Your task to perform on an android device: turn off notifications settings in the gmail app Image 0: 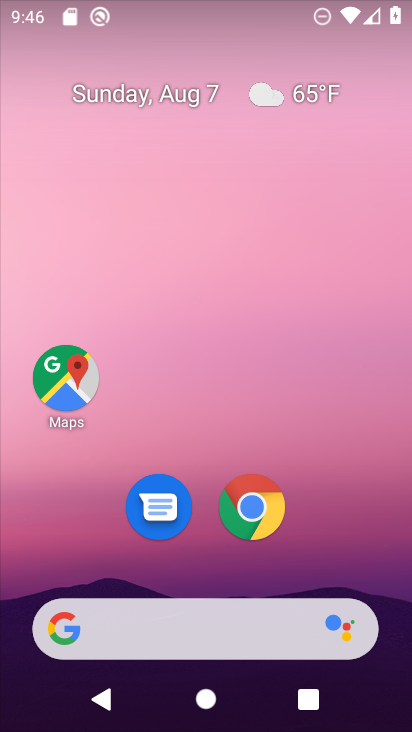
Step 0: click (368, 80)
Your task to perform on an android device: turn off notifications settings in the gmail app Image 1: 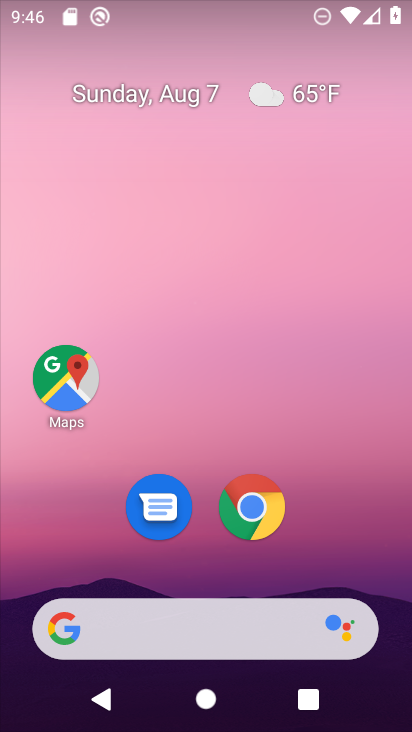
Step 1: drag from (371, 568) to (333, 123)
Your task to perform on an android device: turn off notifications settings in the gmail app Image 2: 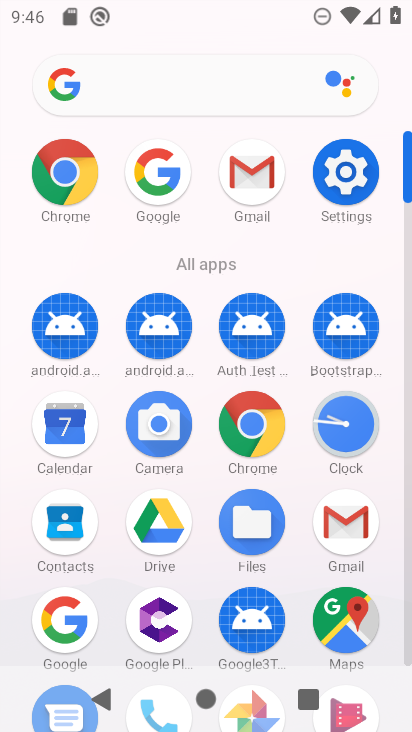
Step 2: click (254, 178)
Your task to perform on an android device: turn off notifications settings in the gmail app Image 3: 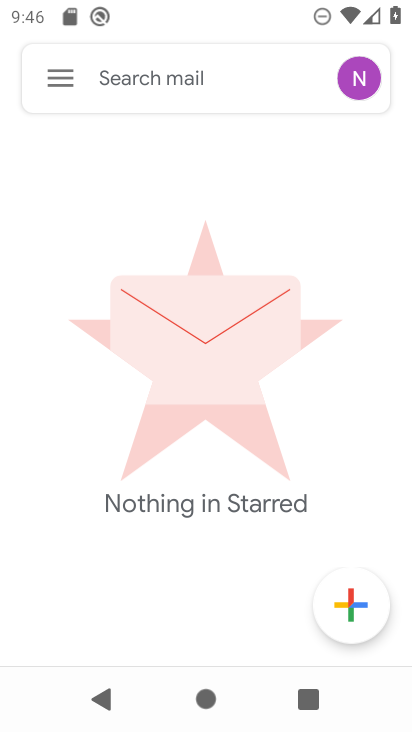
Step 3: click (66, 74)
Your task to perform on an android device: turn off notifications settings in the gmail app Image 4: 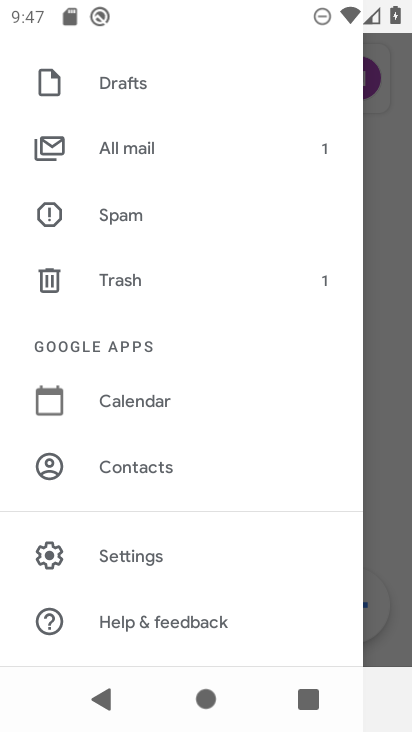
Step 4: drag from (194, 214) to (310, 56)
Your task to perform on an android device: turn off notifications settings in the gmail app Image 5: 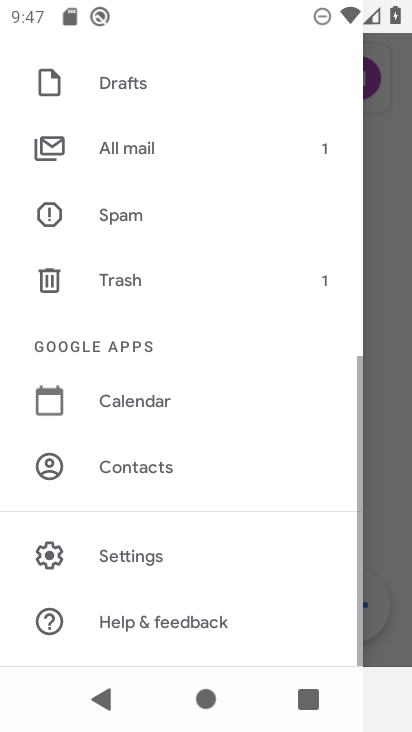
Step 5: click (117, 569)
Your task to perform on an android device: turn off notifications settings in the gmail app Image 6: 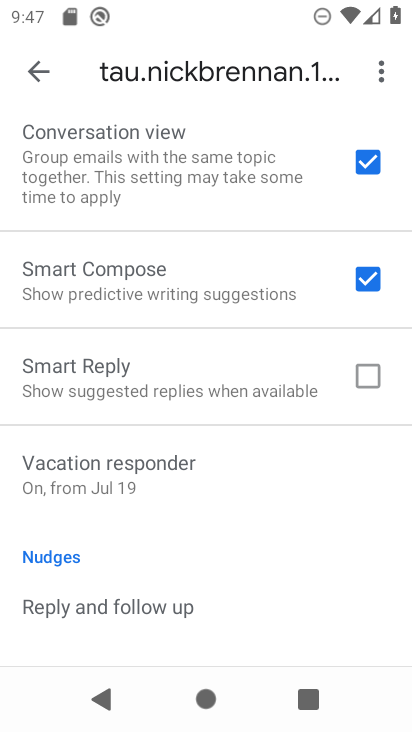
Step 6: drag from (79, 169) to (113, 592)
Your task to perform on an android device: turn off notifications settings in the gmail app Image 7: 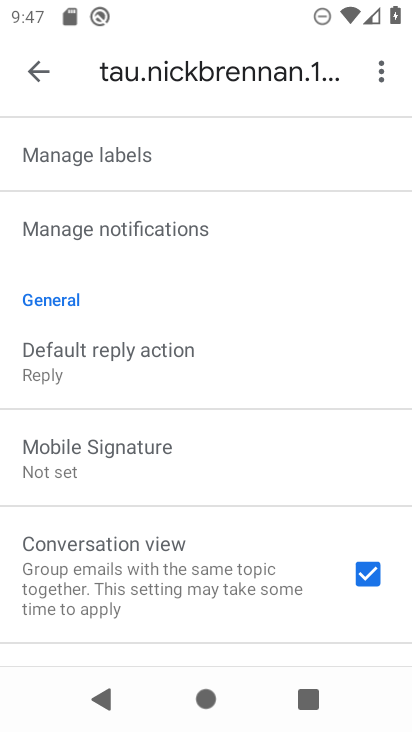
Step 7: click (99, 238)
Your task to perform on an android device: turn off notifications settings in the gmail app Image 8: 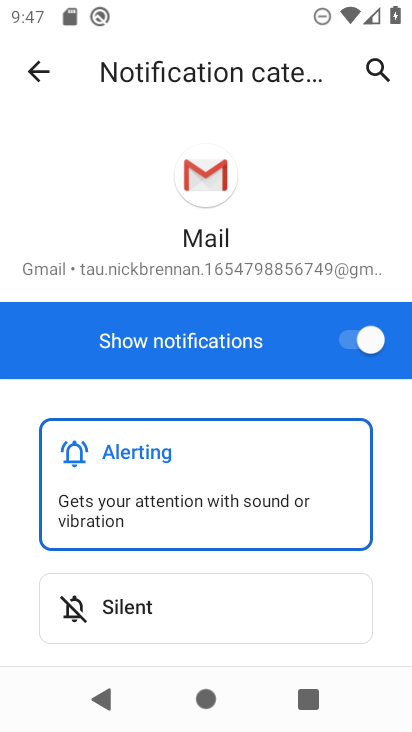
Step 8: click (345, 339)
Your task to perform on an android device: turn off notifications settings in the gmail app Image 9: 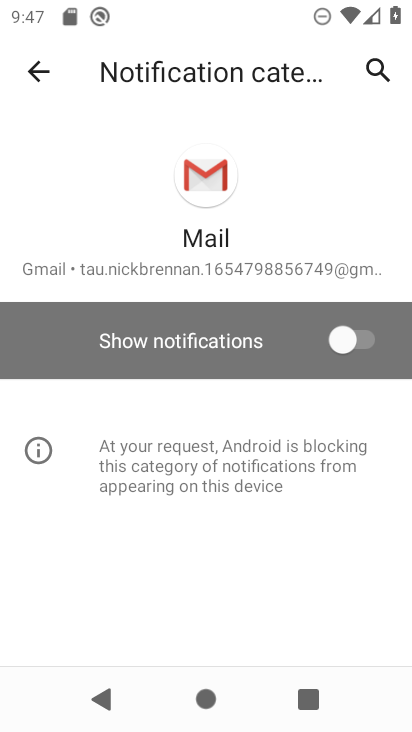
Step 9: task complete